Your task to perform on an android device: turn notification dots off Image 0: 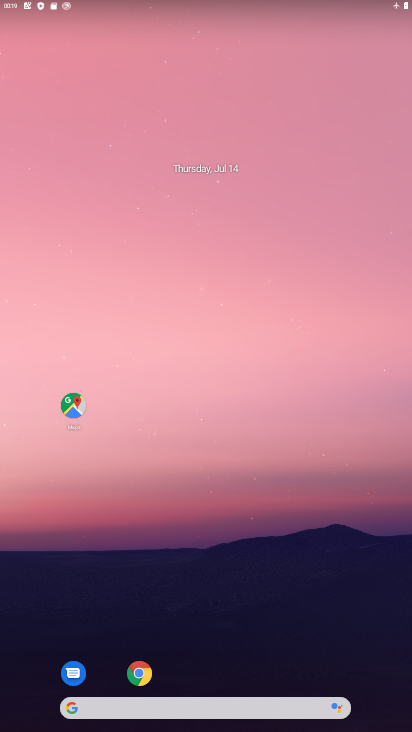
Step 0: drag from (253, 651) to (252, 222)
Your task to perform on an android device: turn notification dots off Image 1: 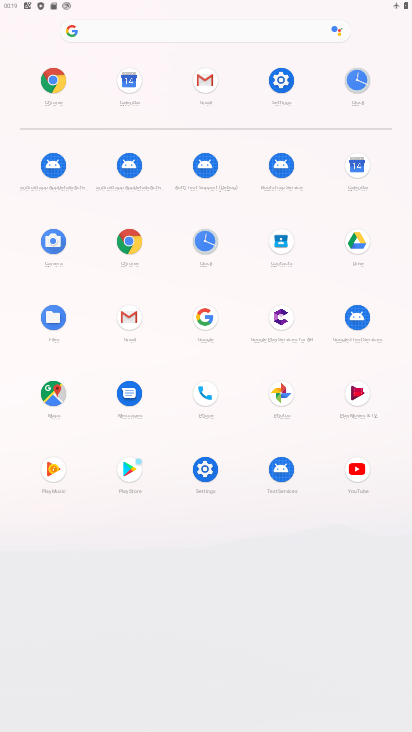
Step 1: click (278, 95)
Your task to perform on an android device: turn notification dots off Image 2: 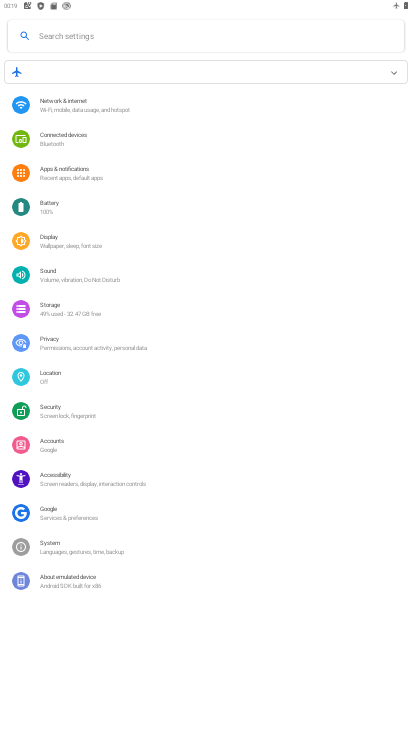
Step 2: click (81, 174)
Your task to perform on an android device: turn notification dots off Image 3: 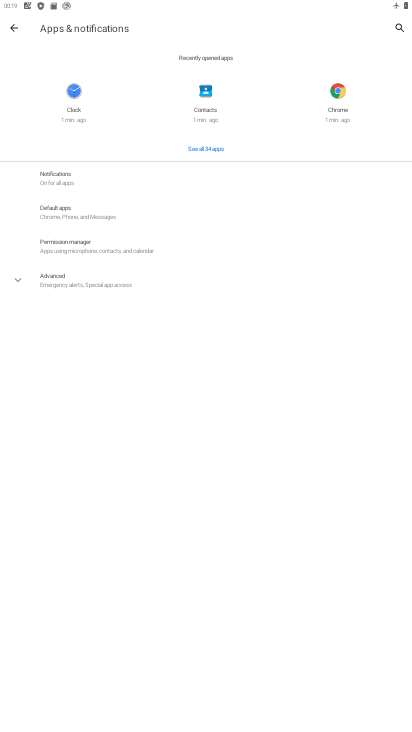
Step 3: click (69, 180)
Your task to perform on an android device: turn notification dots off Image 4: 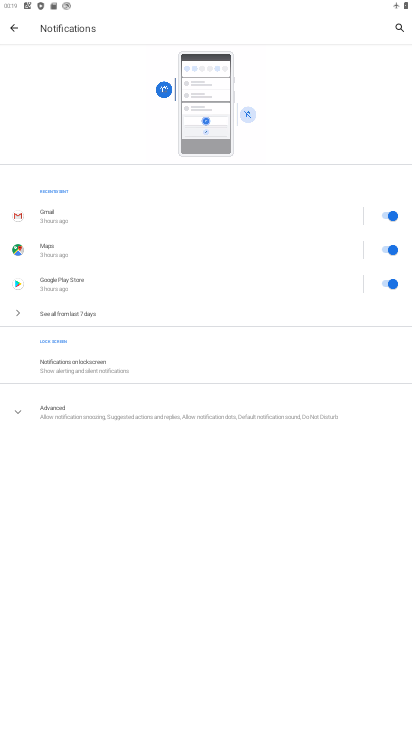
Step 4: click (66, 417)
Your task to perform on an android device: turn notification dots off Image 5: 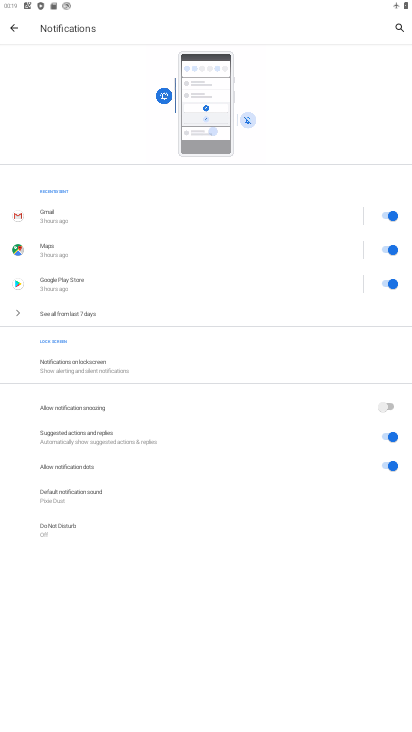
Step 5: click (387, 466)
Your task to perform on an android device: turn notification dots off Image 6: 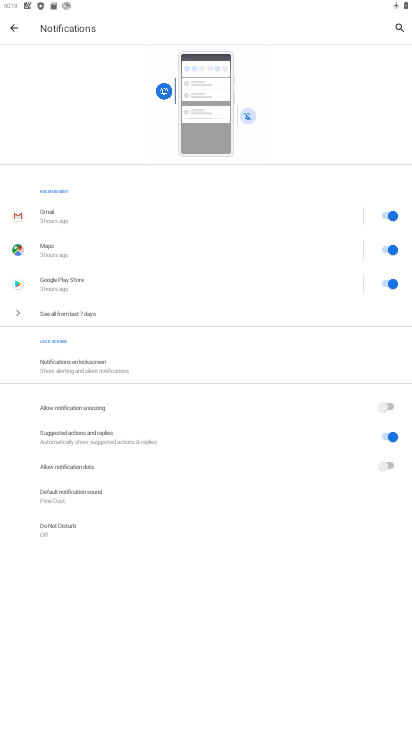
Step 6: task complete